Your task to perform on an android device: manage bookmarks in the chrome app Image 0: 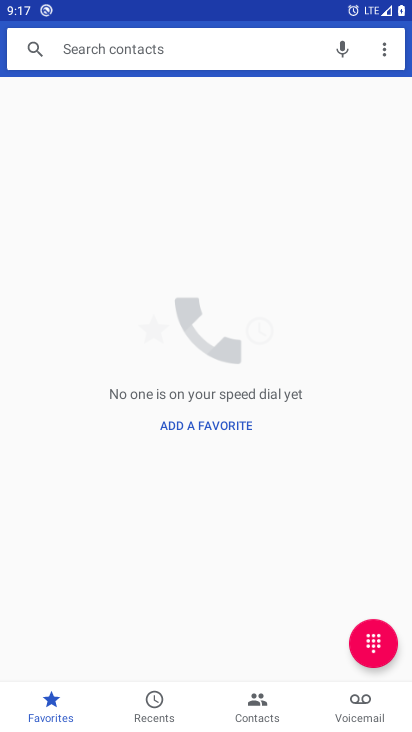
Step 0: press home button
Your task to perform on an android device: manage bookmarks in the chrome app Image 1: 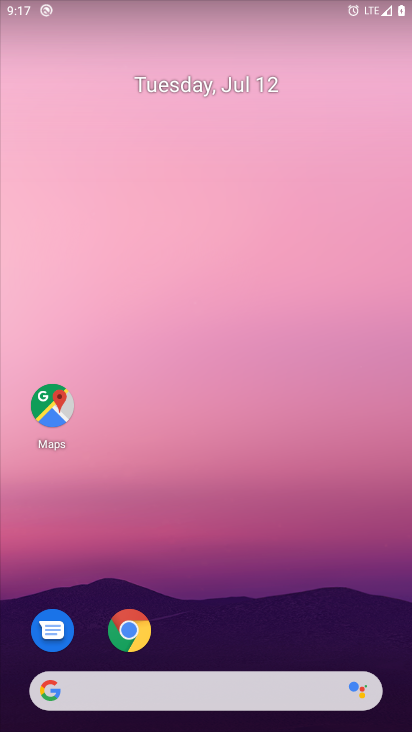
Step 1: drag from (301, 588) to (250, 43)
Your task to perform on an android device: manage bookmarks in the chrome app Image 2: 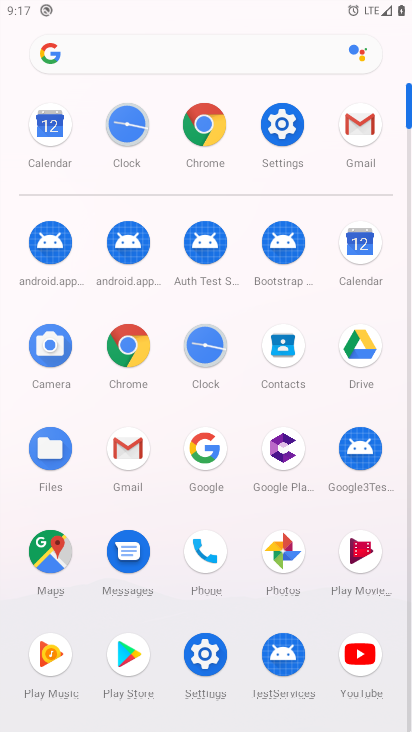
Step 2: click (117, 355)
Your task to perform on an android device: manage bookmarks in the chrome app Image 3: 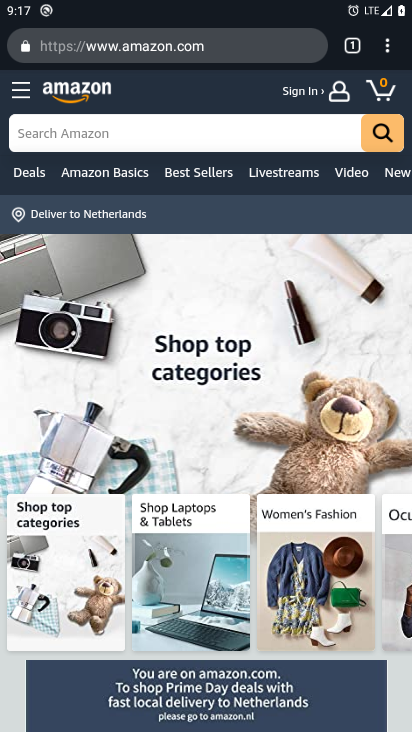
Step 3: task complete